Your task to perform on an android device: turn off wifi Image 0: 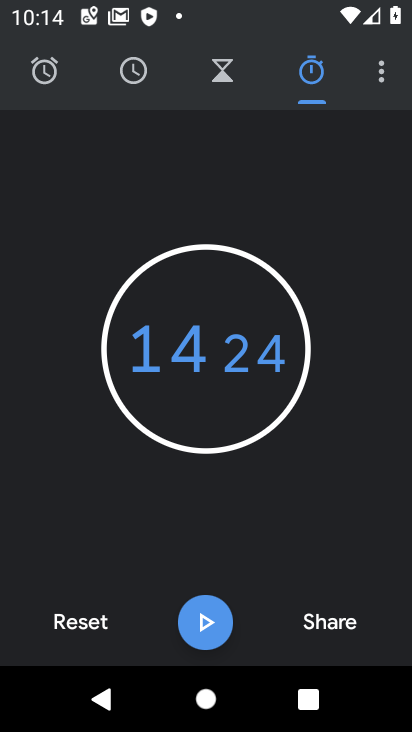
Step 0: press home button
Your task to perform on an android device: turn off wifi Image 1: 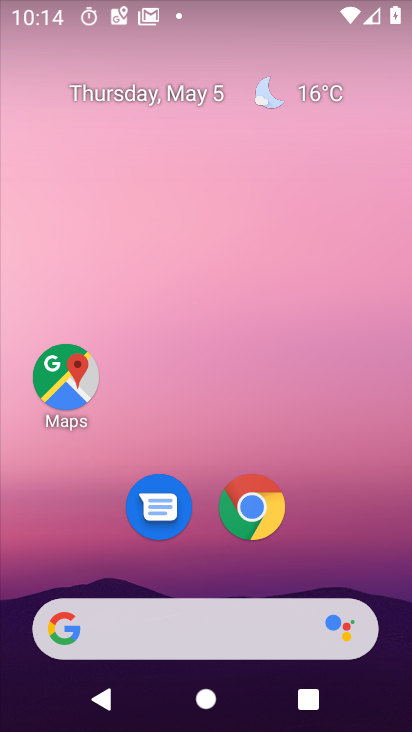
Step 1: drag from (204, 576) to (263, 273)
Your task to perform on an android device: turn off wifi Image 2: 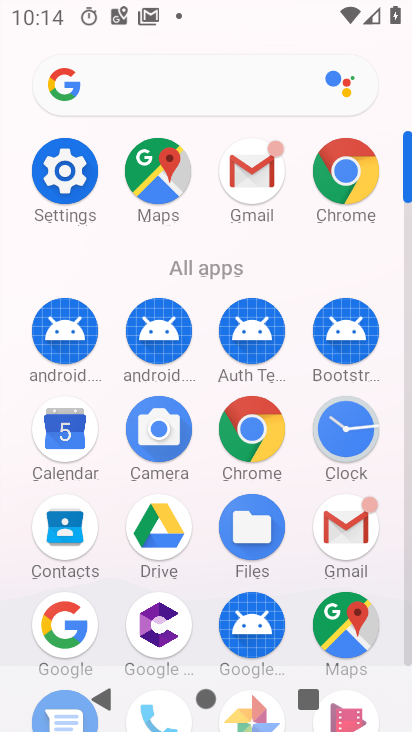
Step 2: click (47, 175)
Your task to perform on an android device: turn off wifi Image 3: 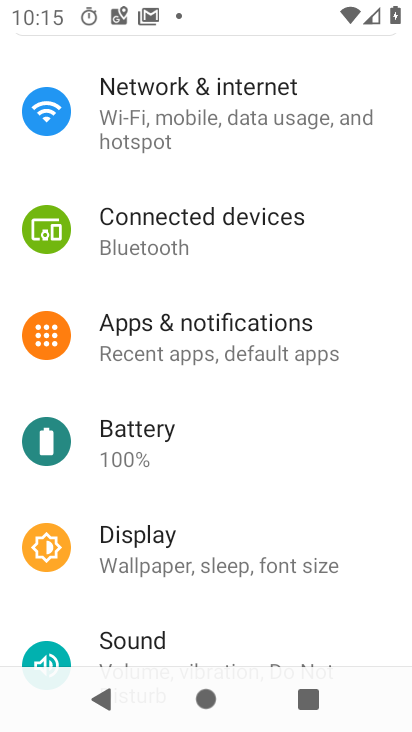
Step 3: drag from (216, 634) to (279, 590)
Your task to perform on an android device: turn off wifi Image 4: 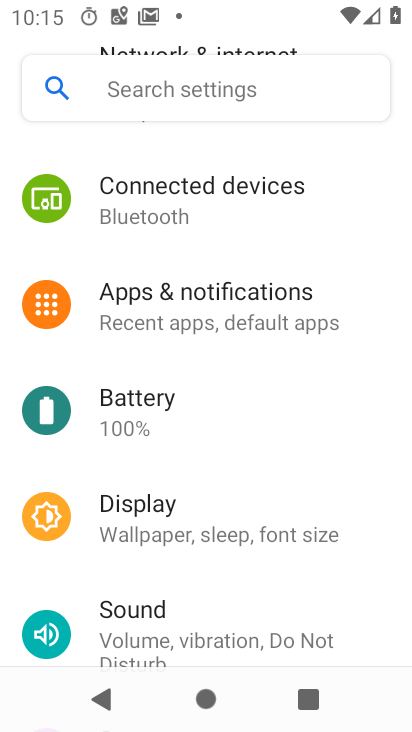
Step 4: drag from (187, 185) to (211, 533)
Your task to perform on an android device: turn off wifi Image 5: 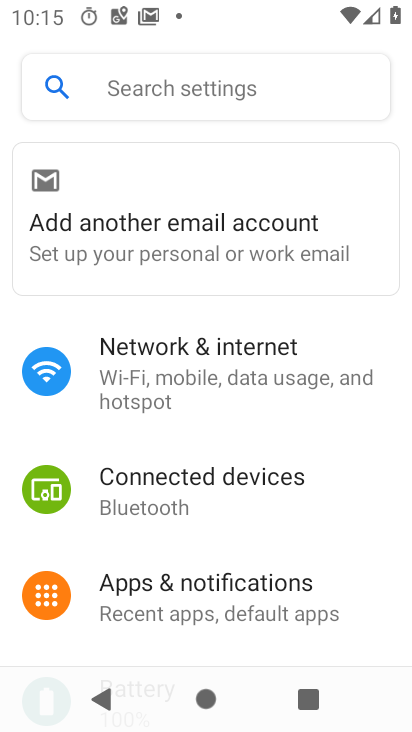
Step 5: click (188, 381)
Your task to perform on an android device: turn off wifi Image 6: 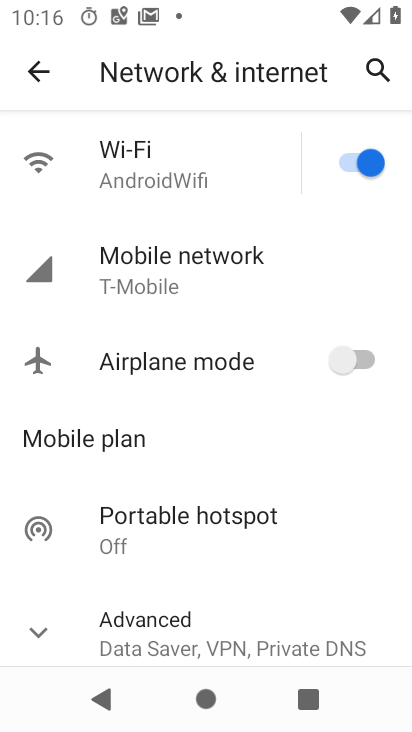
Step 6: click (342, 168)
Your task to perform on an android device: turn off wifi Image 7: 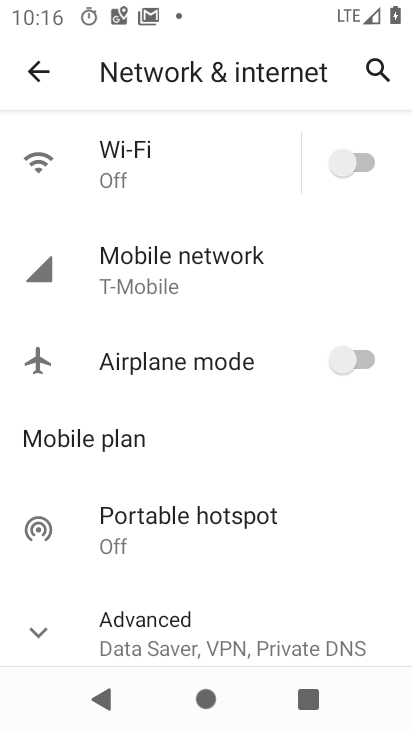
Step 7: task complete